Your task to perform on an android device: Search for vegetarian restaurants on Maps Image 0: 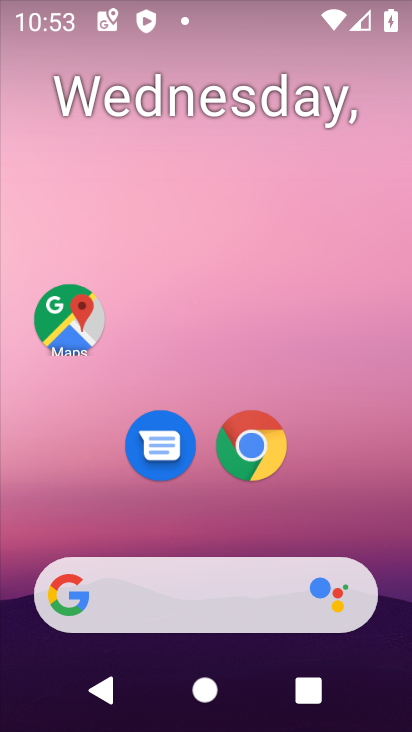
Step 0: click (57, 320)
Your task to perform on an android device: Search for vegetarian restaurants on Maps Image 1: 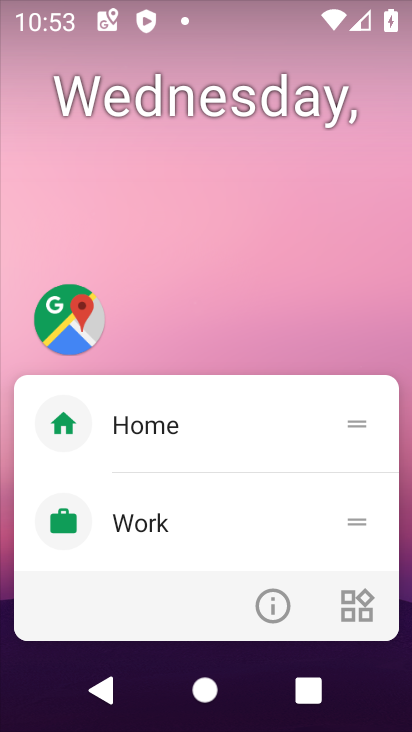
Step 1: click (67, 303)
Your task to perform on an android device: Search for vegetarian restaurants on Maps Image 2: 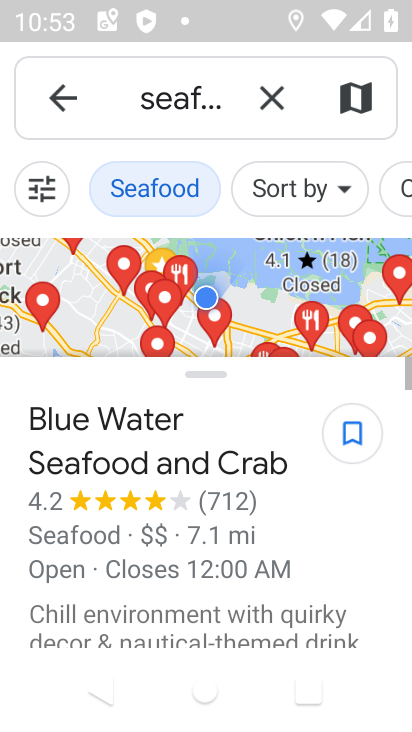
Step 2: click (267, 85)
Your task to perform on an android device: Search for vegetarian restaurants on Maps Image 3: 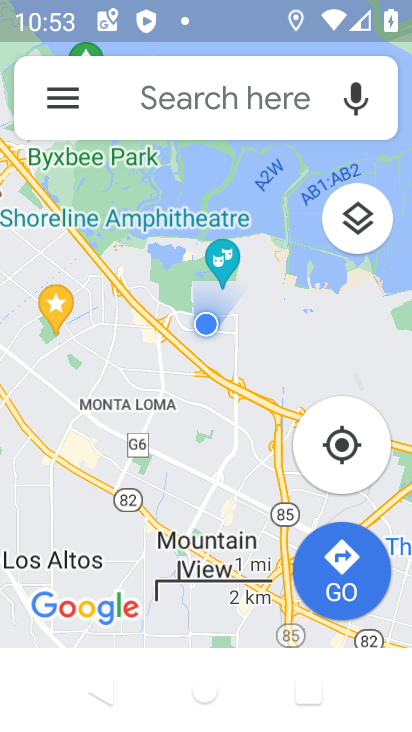
Step 3: click (160, 103)
Your task to perform on an android device: Search for vegetarian restaurants on Maps Image 4: 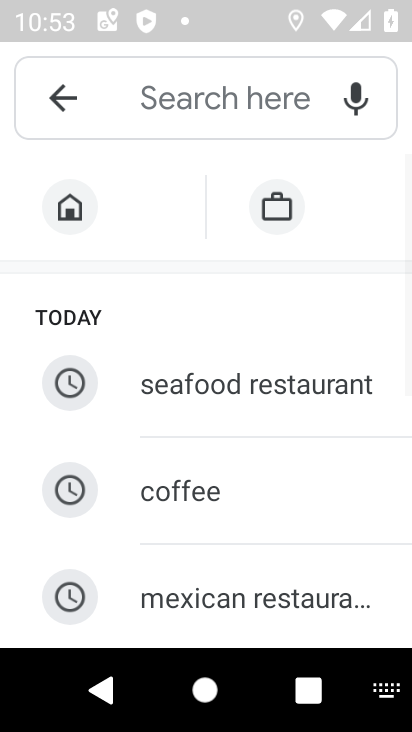
Step 4: drag from (203, 613) to (277, 247)
Your task to perform on an android device: Search for vegetarian restaurants on Maps Image 5: 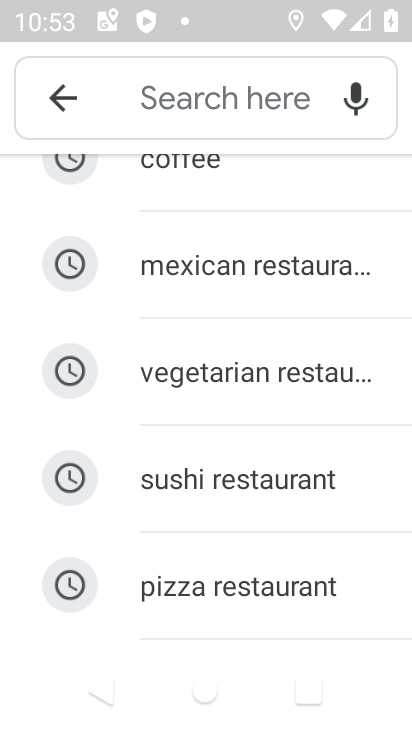
Step 5: click (234, 376)
Your task to perform on an android device: Search for vegetarian restaurants on Maps Image 6: 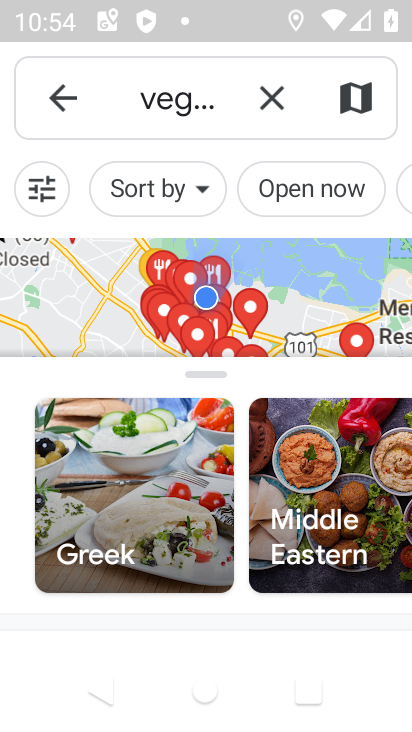
Step 6: task complete